Your task to perform on an android device: turn off location Image 0: 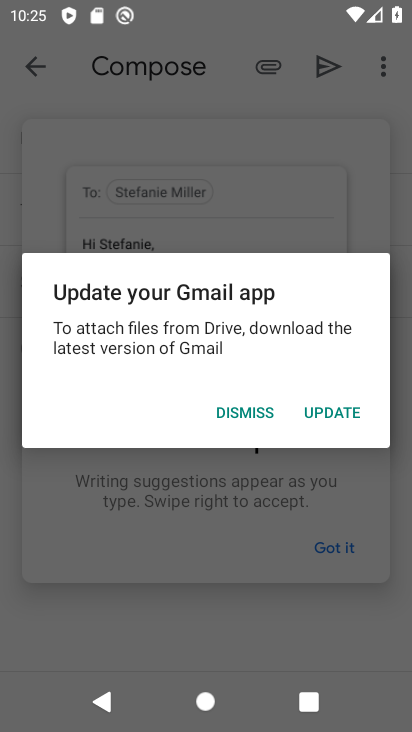
Step 0: press home button
Your task to perform on an android device: turn off location Image 1: 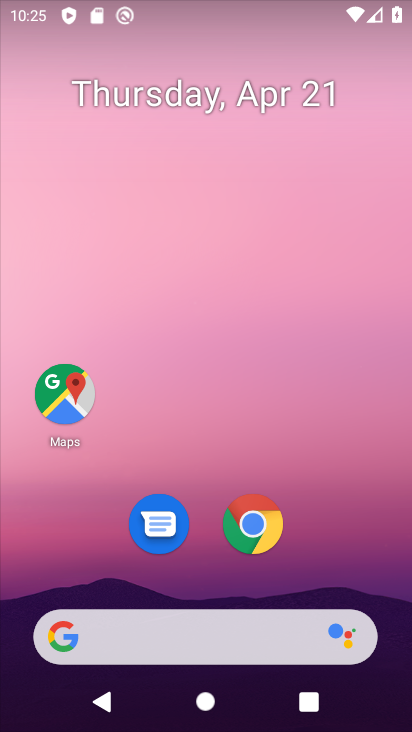
Step 1: drag from (336, 547) to (353, 92)
Your task to perform on an android device: turn off location Image 2: 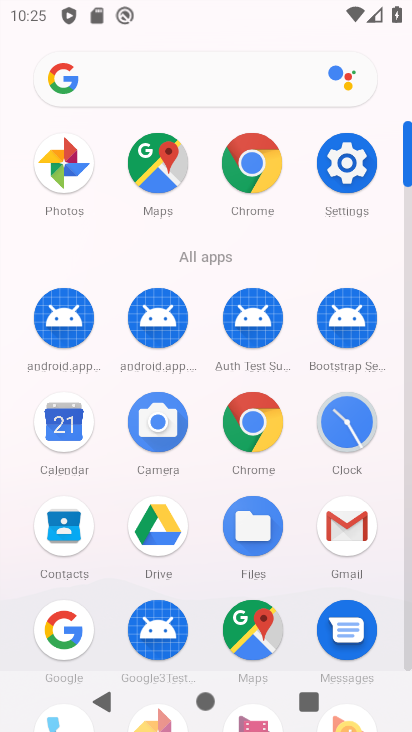
Step 2: click (347, 170)
Your task to perform on an android device: turn off location Image 3: 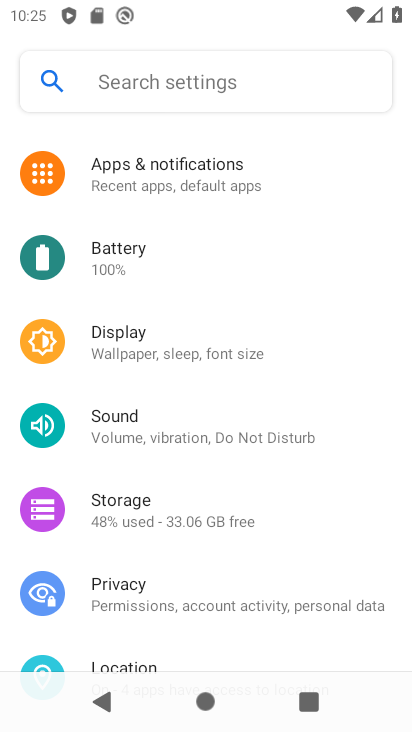
Step 3: drag from (295, 542) to (313, 286)
Your task to perform on an android device: turn off location Image 4: 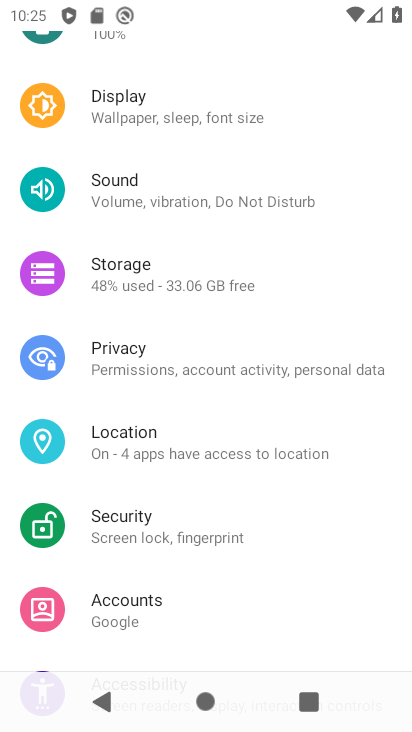
Step 4: click (235, 450)
Your task to perform on an android device: turn off location Image 5: 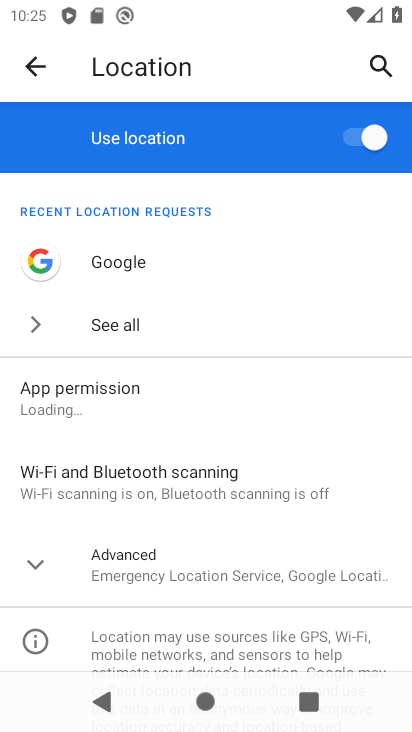
Step 5: click (360, 134)
Your task to perform on an android device: turn off location Image 6: 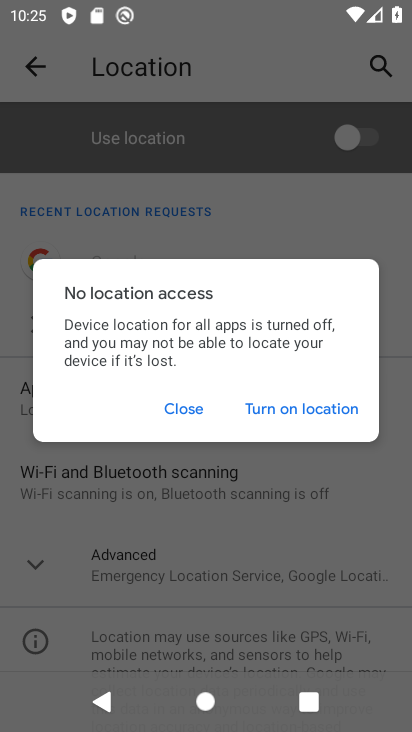
Step 6: task complete